Your task to perform on an android device: empty trash in google photos Image 0: 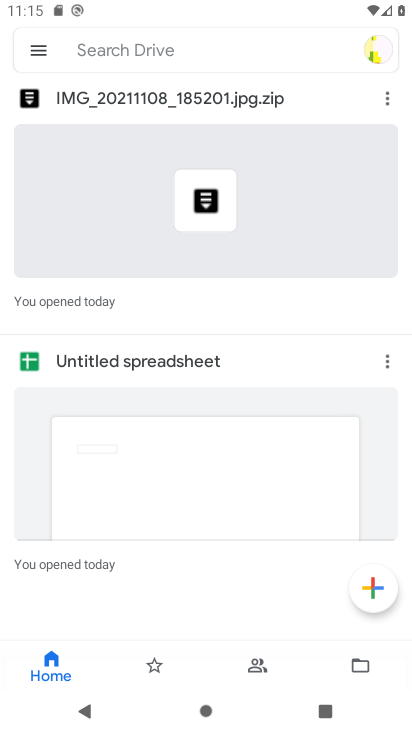
Step 0: press home button
Your task to perform on an android device: empty trash in google photos Image 1: 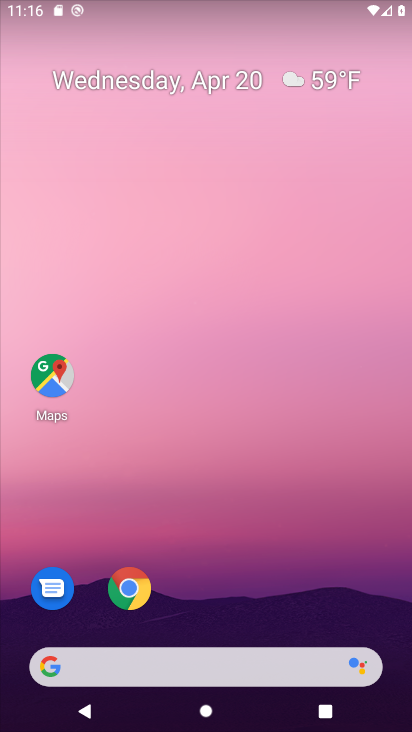
Step 1: drag from (374, 608) to (312, 180)
Your task to perform on an android device: empty trash in google photos Image 2: 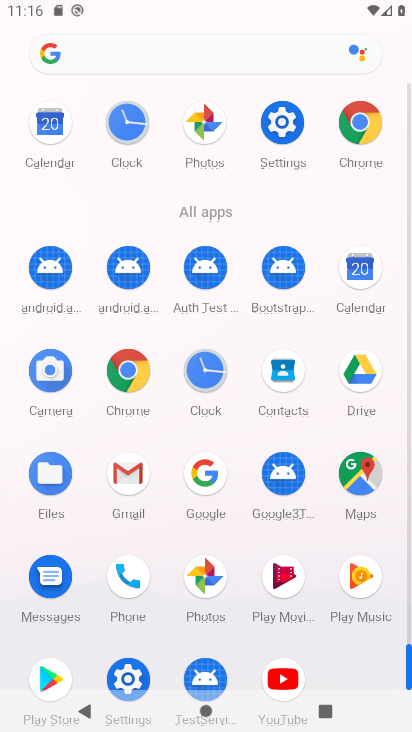
Step 2: click (408, 631)
Your task to perform on an android device: empty trash in google photos Image 3: 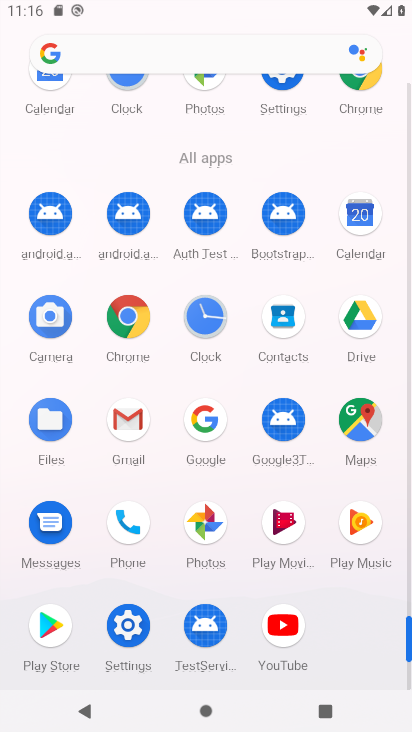
Step 3: click (205, 520)
Your task to perform on an android device: empty trash in google photos Image 4: 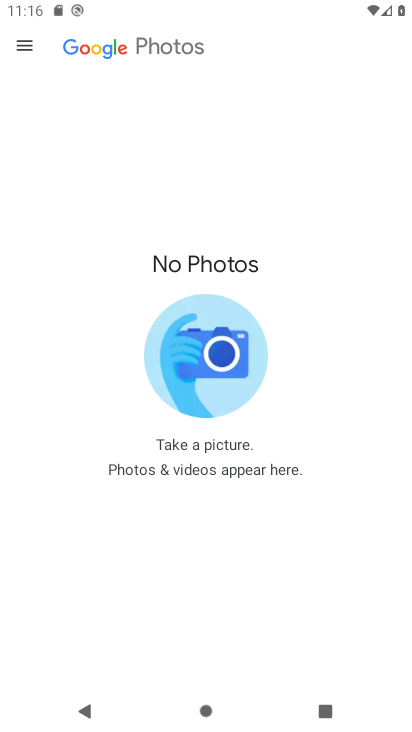
Step 4: click (17, 33)
Your task to perform on an android device: empty trash in google photos Image 5: 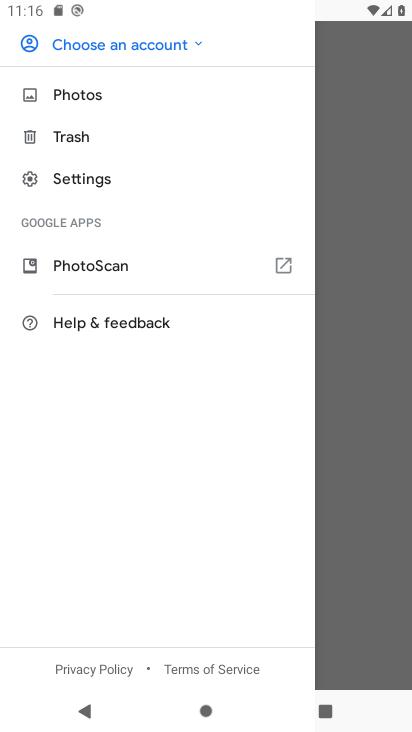
Step 5: click (68, 130)
Your task to perform on an android device: empty trash in google photos Image 6: 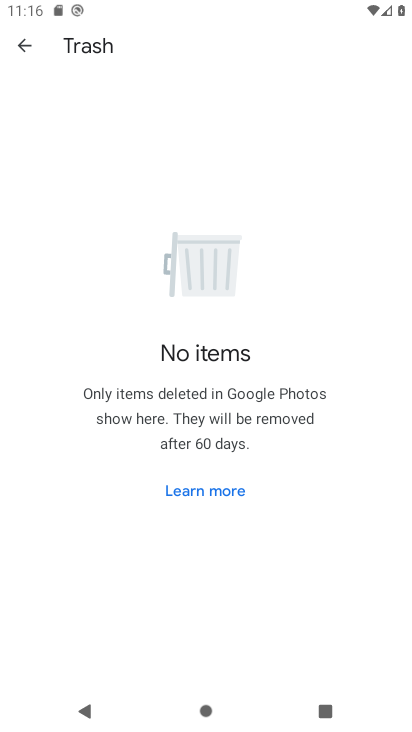
Step 6: task complete